Your task to perform on an android device: Go to privacy settings Image 0: 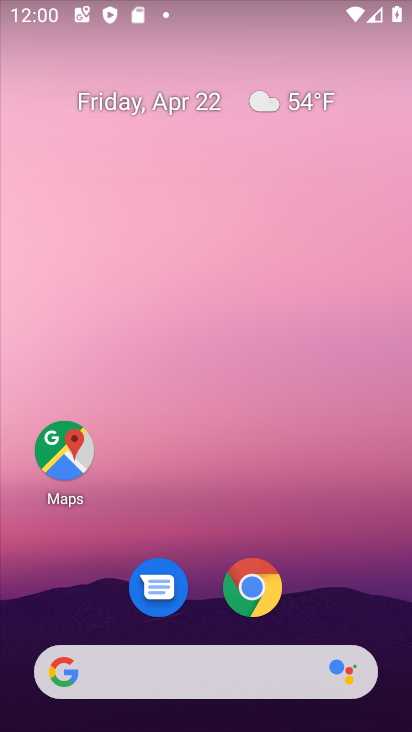
Step 0: drag from (356, 619) to (323, 7)
Your task to perform on an android device: Go to privacy settings Image 1: 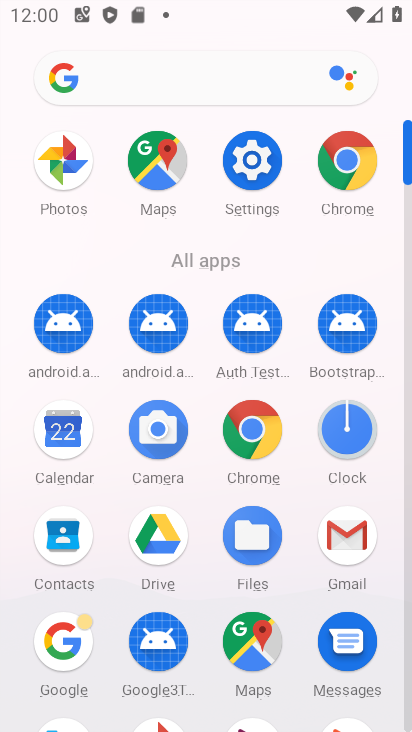
Step 1: click (252, 170)
Your task to perform on an android device: Go to privacy settings Image 2: 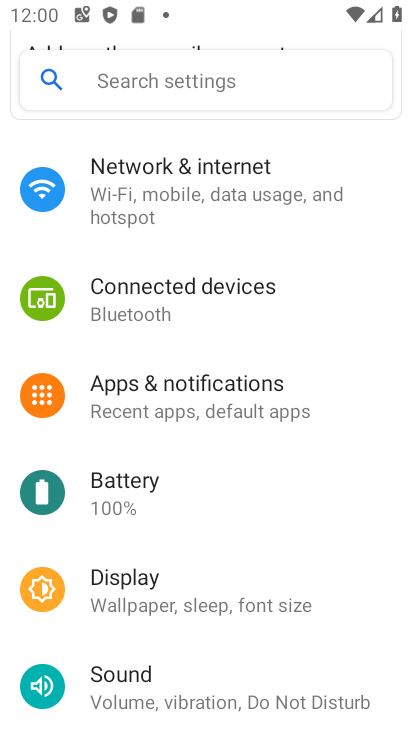
Step 2: drag from (246, 620) to (243, 220)
Your task to perform on an android device: Go to privacy settings Image 3: 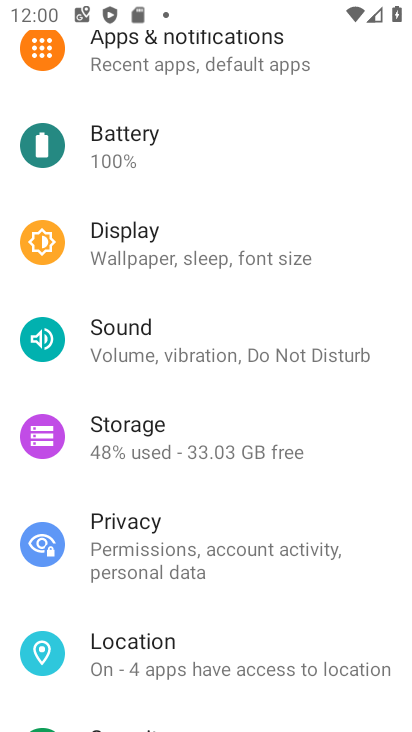
Step 3: click (144, 557)
Your task to perform on an android device: Go to privacy settings Image 4: 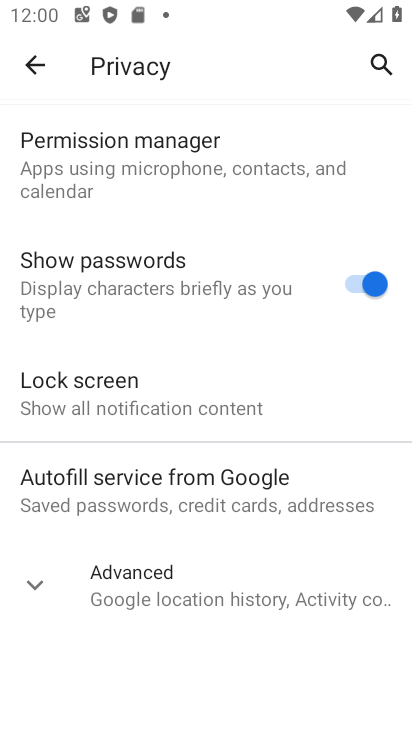
Step 4: task complete